Your task to perform on an android device: Open calendar and show me the third week of next month Image 0: 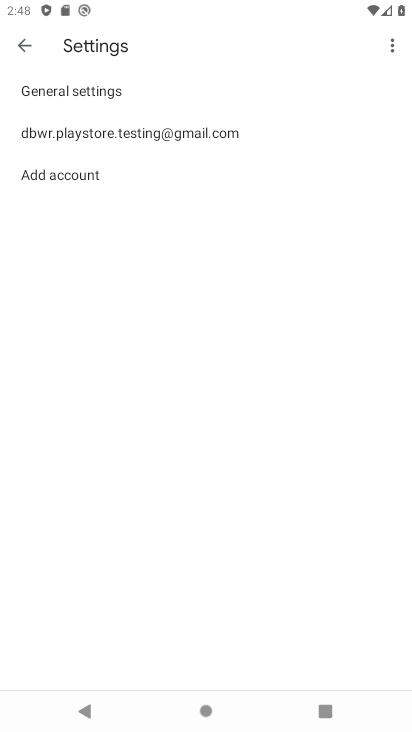
Step 0: press home button
Your task to perform on an android device: Open calendar and show me the third week of next month Image 1: 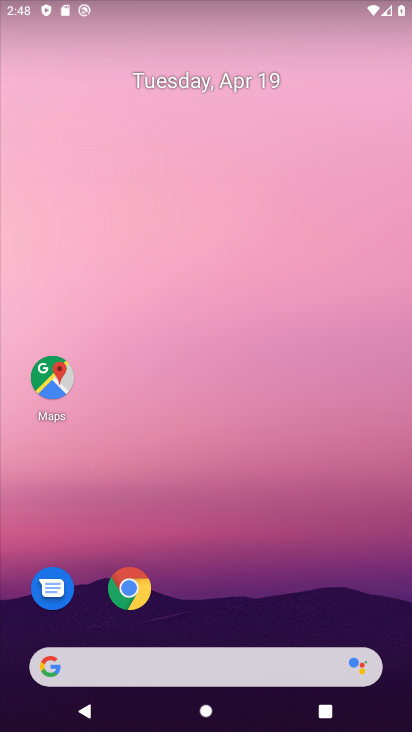
Step 1: drag from (254, 645) to (309, 201)
Your task to perform on an android device: Open calendar and show me the third week of next month Image 2: 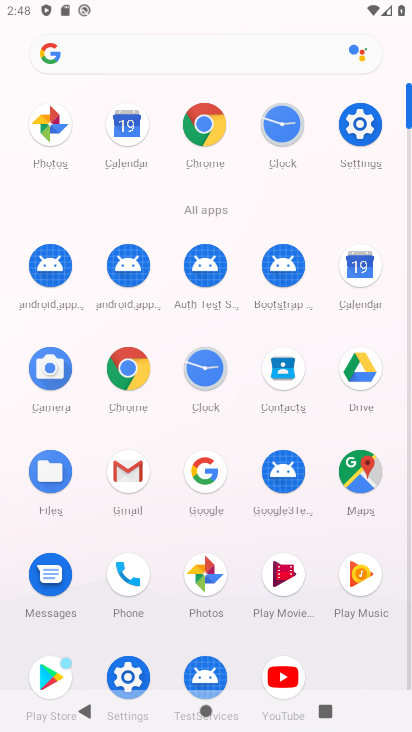
Step 2: click (340, 274)
Your task to perform on an android device: Open calendar and show me the third week of next month Image 3: 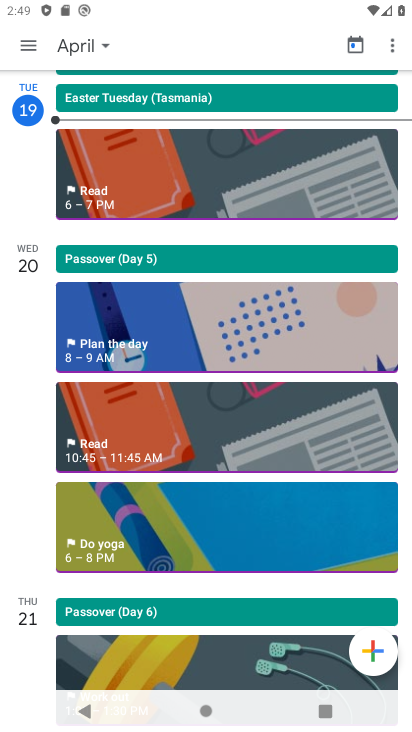
Step 3: click (30, 49)
Your task to perform on an android device: Open calendar and show me the third week of next month Image 4: 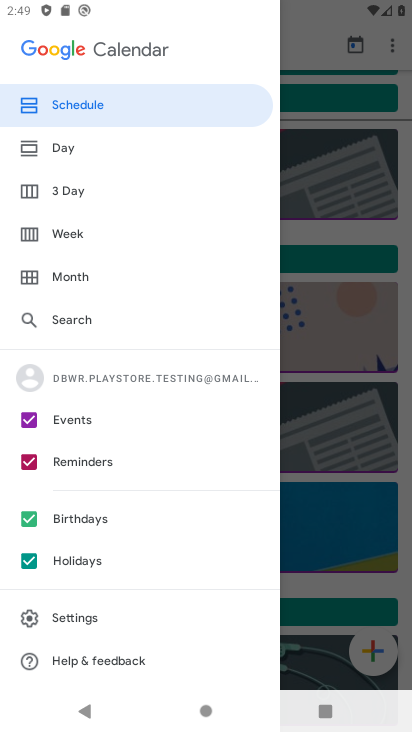
Step 4: click (96, 287)
Your task to perform on an android device: Open calendar and show me the third week of next month Image 5: 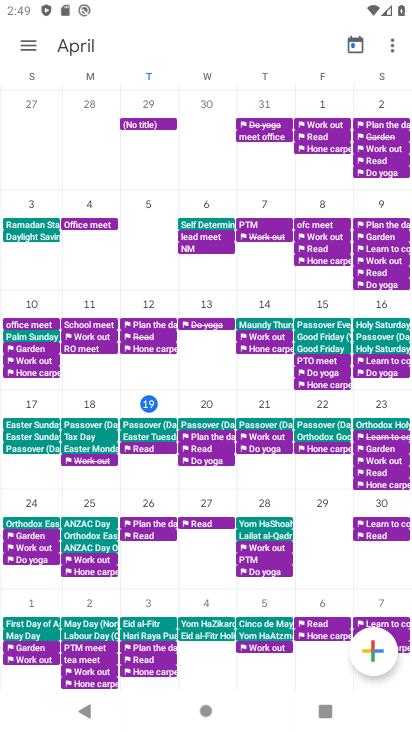
Step 5: drag from (279, 370) to (1, 401)
Your task to perform on an android device: Open calendar and show me the third week of next month Image 6: 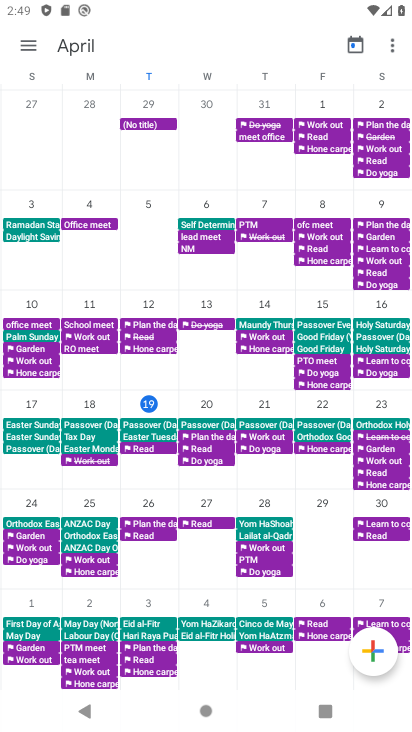
Step 6: drag from (382, 508) to (23, 441)
Your task to perform on an android device: Open calendar and show me the third week of next month Image 7: 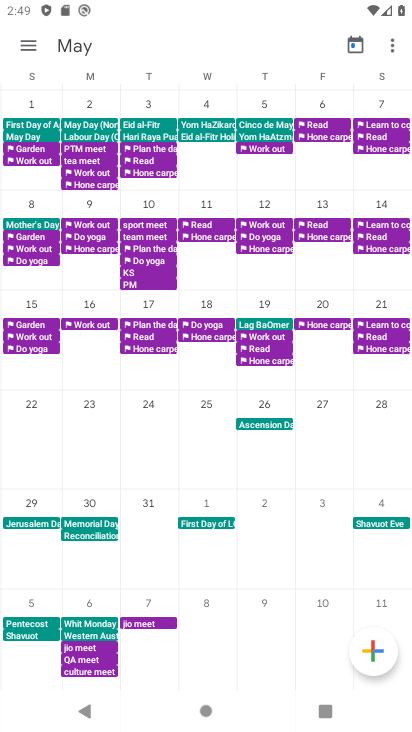
Step 7: click (92, 375)
Your task to perform on an android device: Open calendar and show me the third week of next month Image 8: 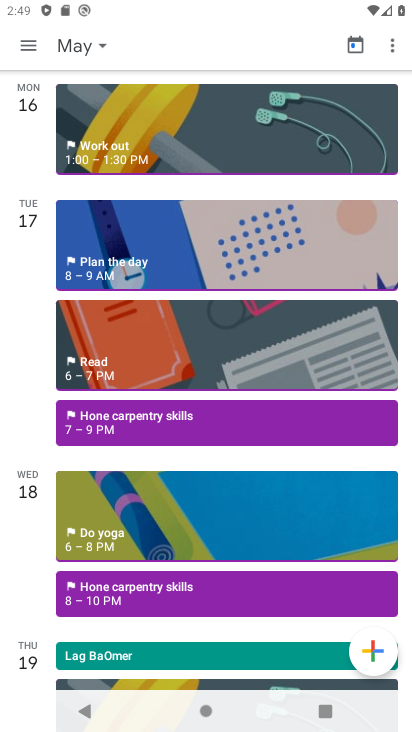
Step 8: task complete